Your task to perform on an android device: open chrome privacy settings Image 0: 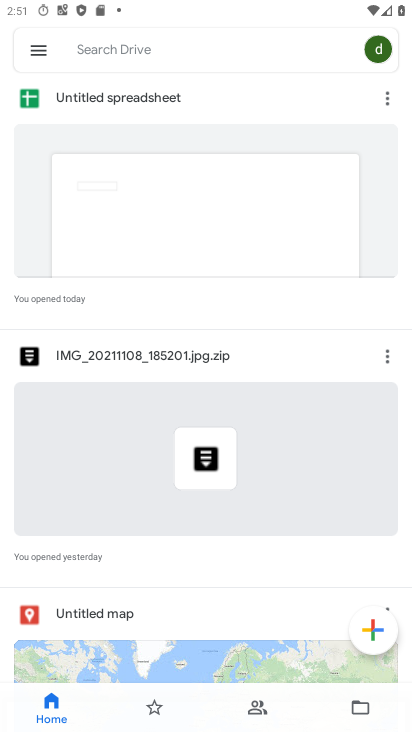
Step 0: press home button
Your task to perform on an android device: open chrome privacy settings Image 1: 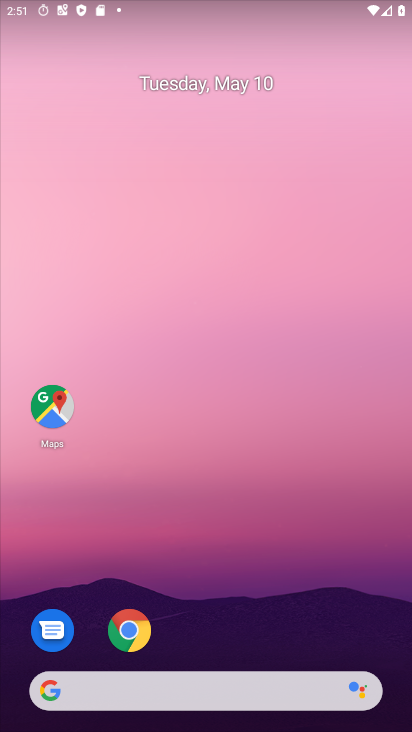
Step 1: click (128, 629)
Your task to perform on an android device: open chrome privacy settings Image 2: 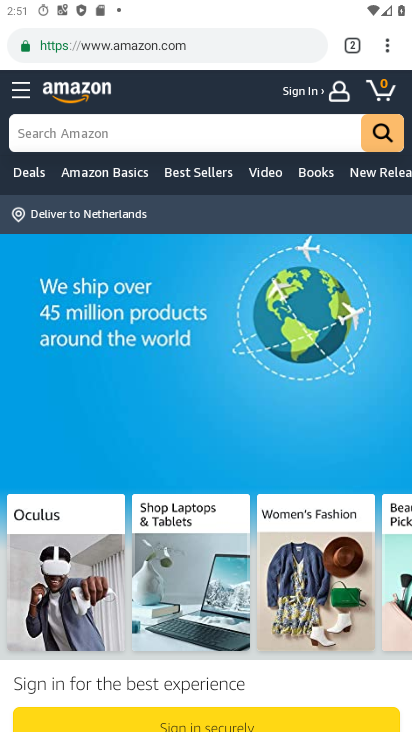
Step 2: click (387, 48)
Your task to perform on an android device: open chrome privacy settings Image 3: 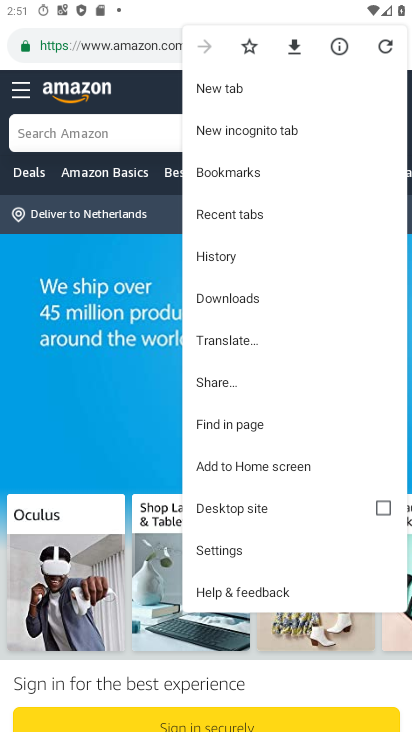
Step 3: click (257, 541)
Your task to perform on an android device: open chrome privacy settings Image 4: 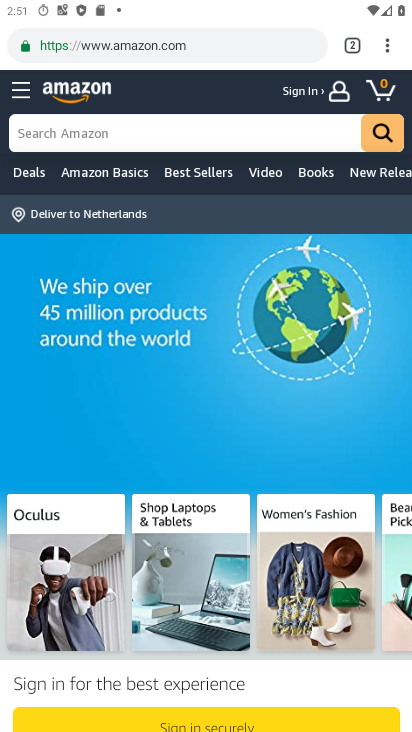
Step 4: click (243, 556)
Your task to perform on an android device: open chrome privacy settings Image 5: 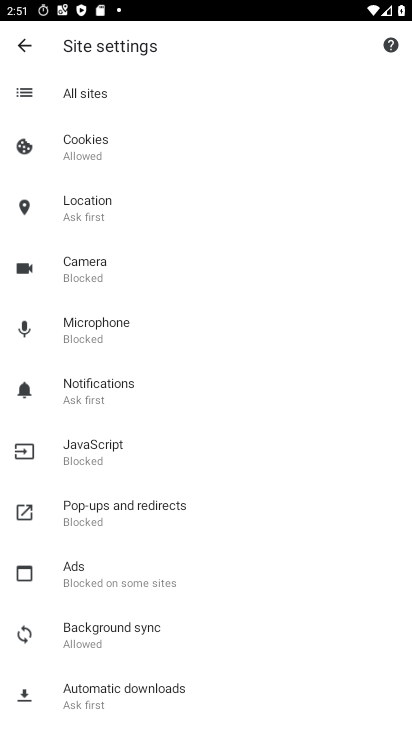
Step 5: click (31, 43)
Your task to perform on an android device: open chrome privacy settings Image 6: 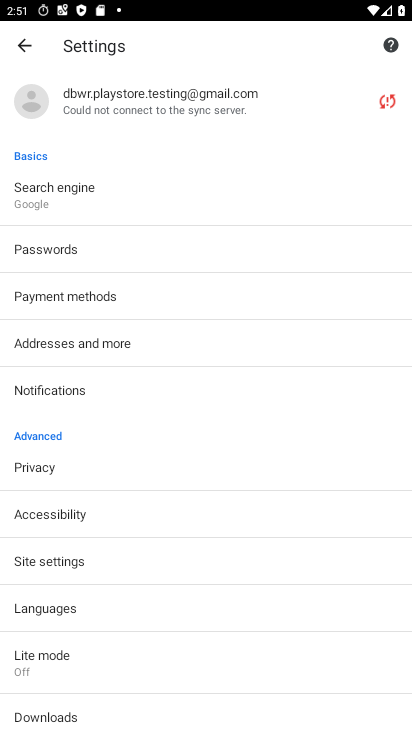
Step 6: click (33, 468)
Your task to perform on an android device: open chrome privacy settings Image 7: 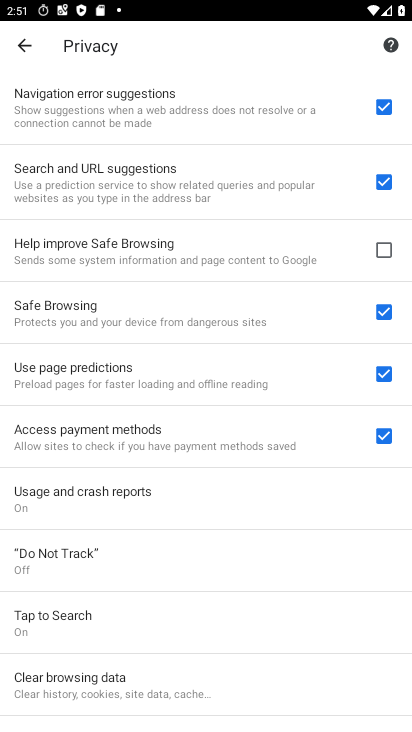
Step 7: task complete